Your task to perform on an android device: Add "usb-a to usb-b" to the cart on ebay.com Image 0: 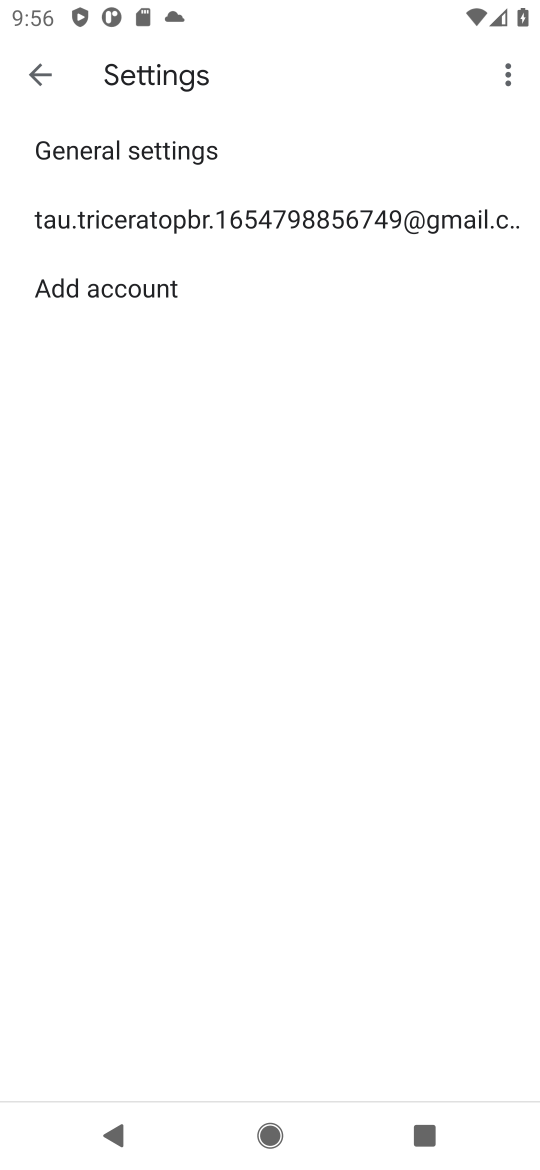
Step 0: press home button
Your task to perform on an android device: Add "usb-a to usb-b" to the cart on ebay.com Image 1: 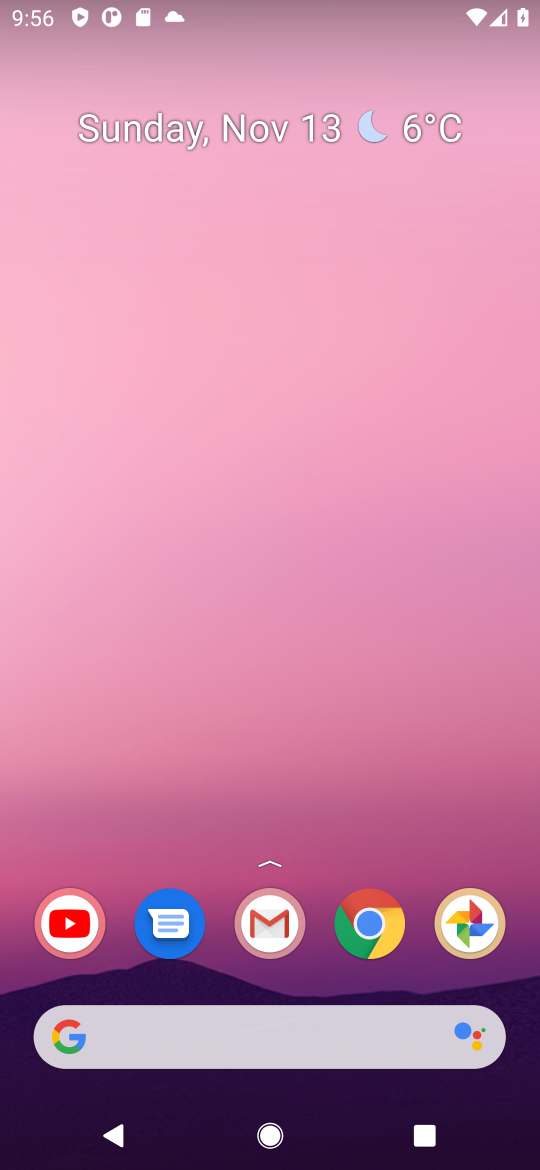
Step 1: click (382, 930)
Your task to perform on an android device: Add "usb-a to usb-b" to the cart on ebay.com Image 2: 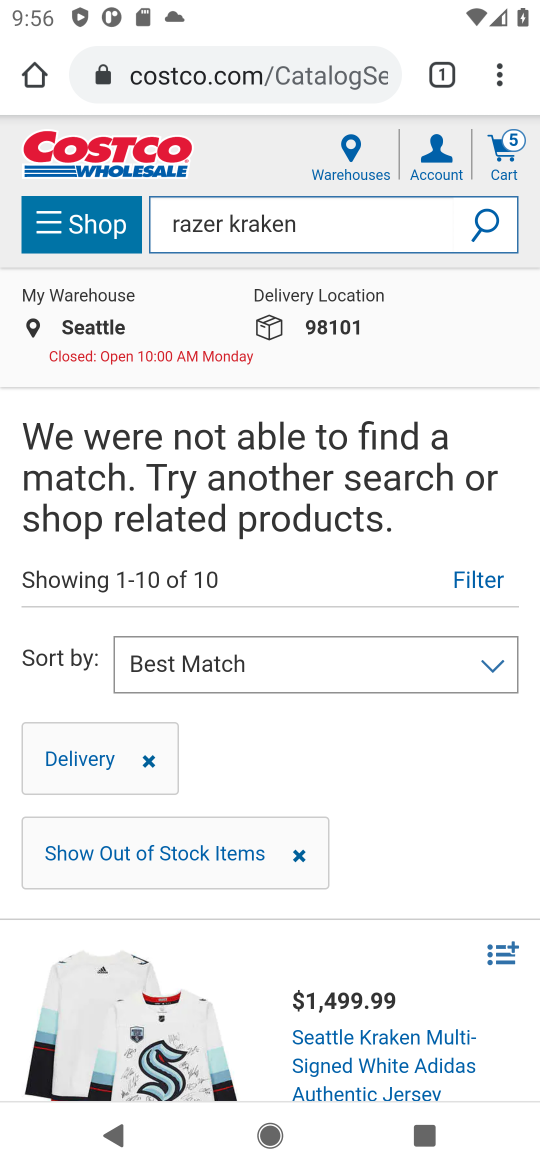
Step 2: click (325, 81)
Your task to perform on an android device: Add "usb-a to usb-b" to the cart on ebay.com Image 3: 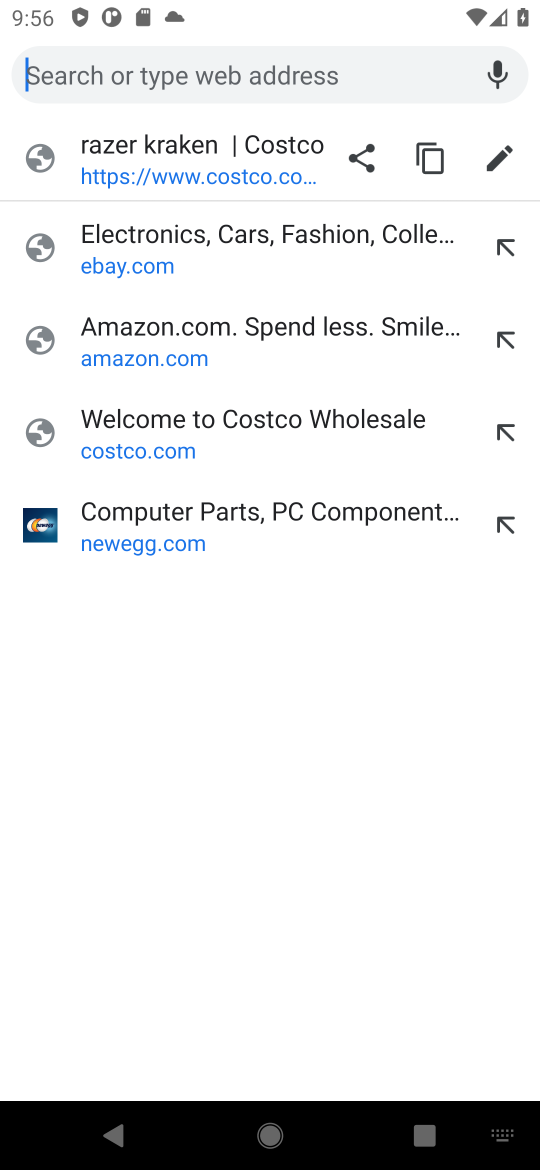
Step 3: click (142, 233)
Your task to perform on an android device: Add "usb-a to usb-b" to the cart on ebay.com Image 4: 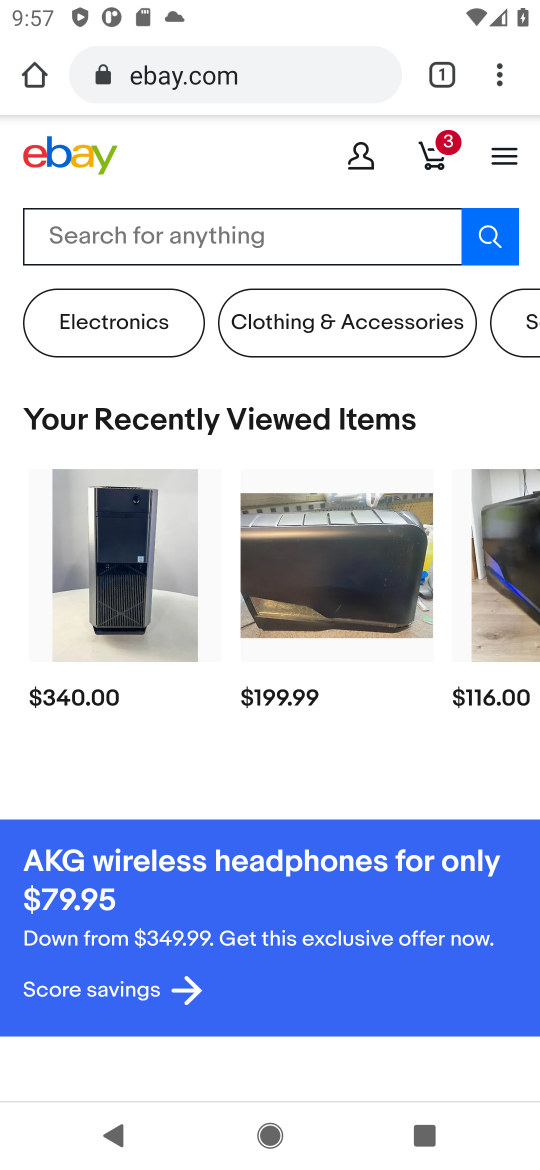
Step 4: click (436, 251)
Your task to perform on an android device: Add "usb-a to usb-b" to the cart on ebay.com Image 5: 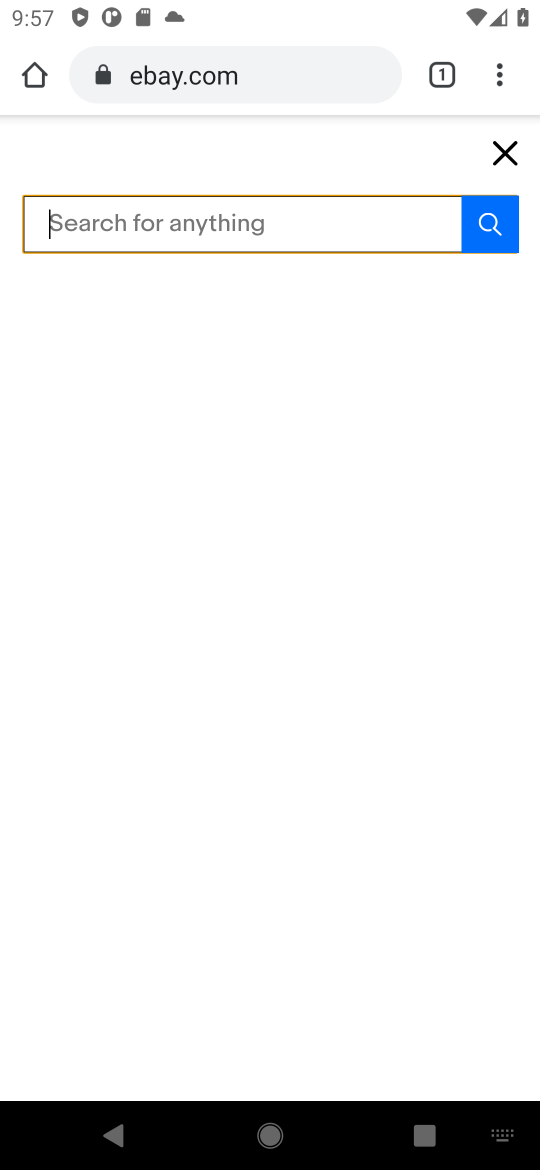
Step 5: type "usb-a to usb-b"
Your task to perform on an android device: Add "usb-a to usb-b" to the cart on ebay.com Image 6: 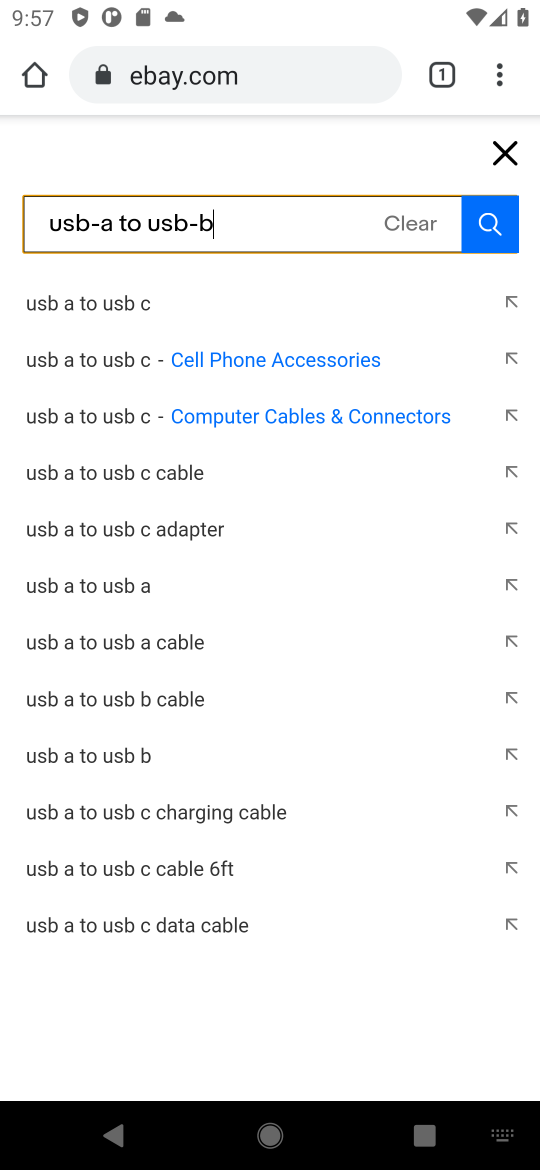
Step 6: press enter
Your task to perform on an android device: Add "usb-a to usb-b" to the cart on ebay.com Image 7: 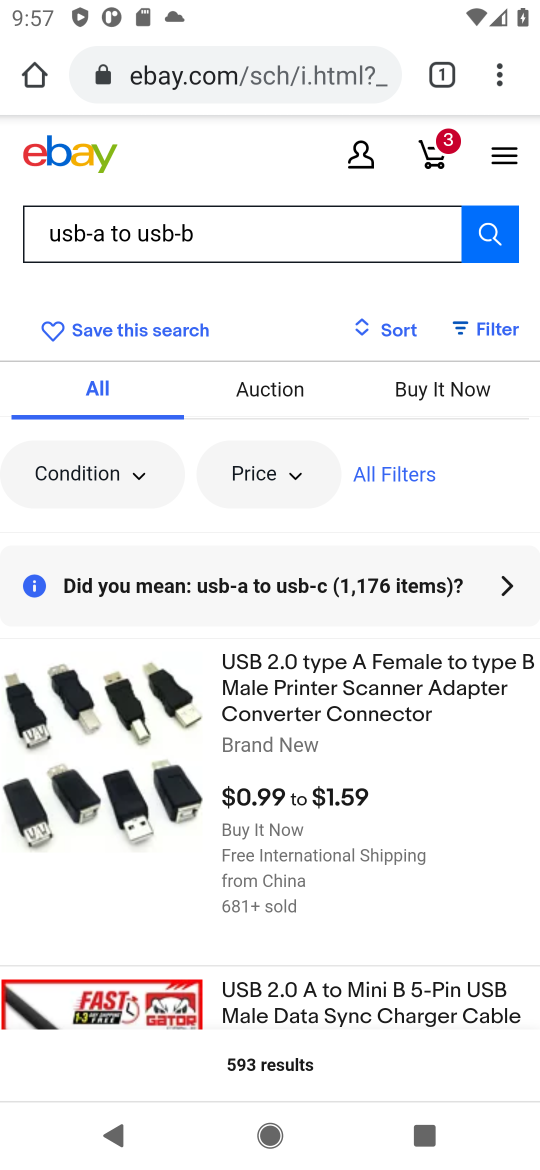
Step 7: drag from (447, 813) to (434, 731)
Your task to perform on an android device: Add "usb-a to usb-b" to the cart on ebay.com Image 8: 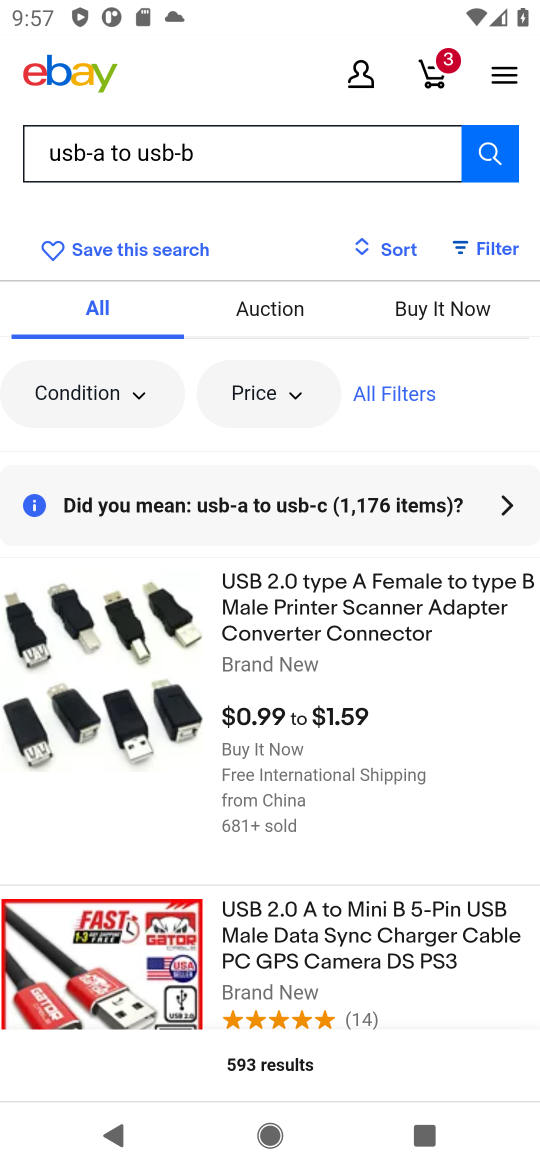
Step 8: click (49, 642)
Your task to perform on an android device: Add "usb-a to usb-b" to the cart on ebay.com Image 9: 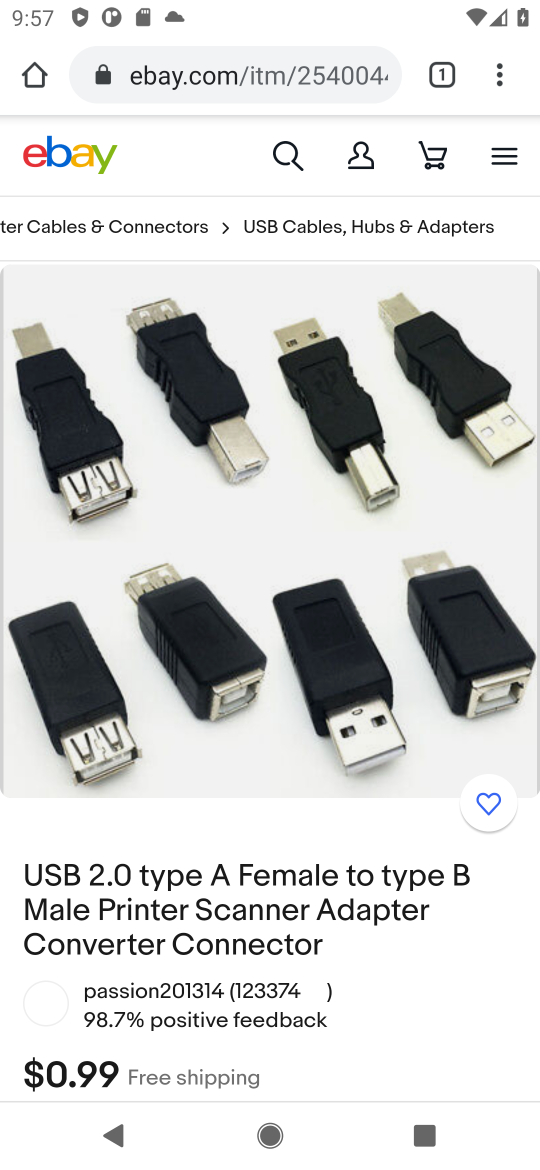
Step 9: drag from (396, 931) to (506, 372)
Your task to perform on an android device: Add "usb-a to usb-b" to the cart on ebay.com Image 10: 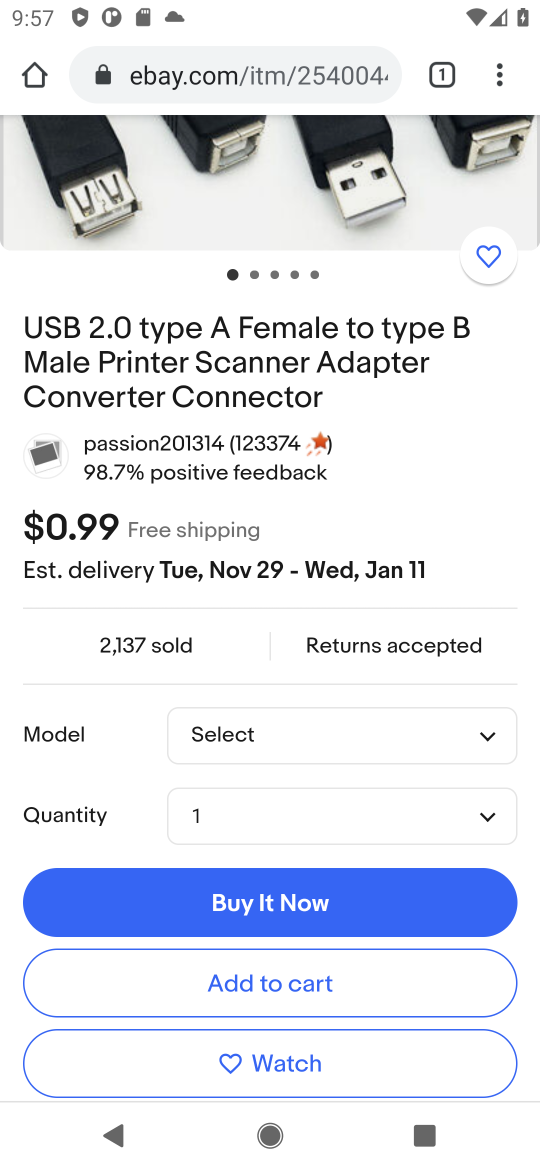
Step 10: click (298, 976)
Your task to perform on an android device: Add "usb-a to usb-b" to the cart on ebay.com Image 11: 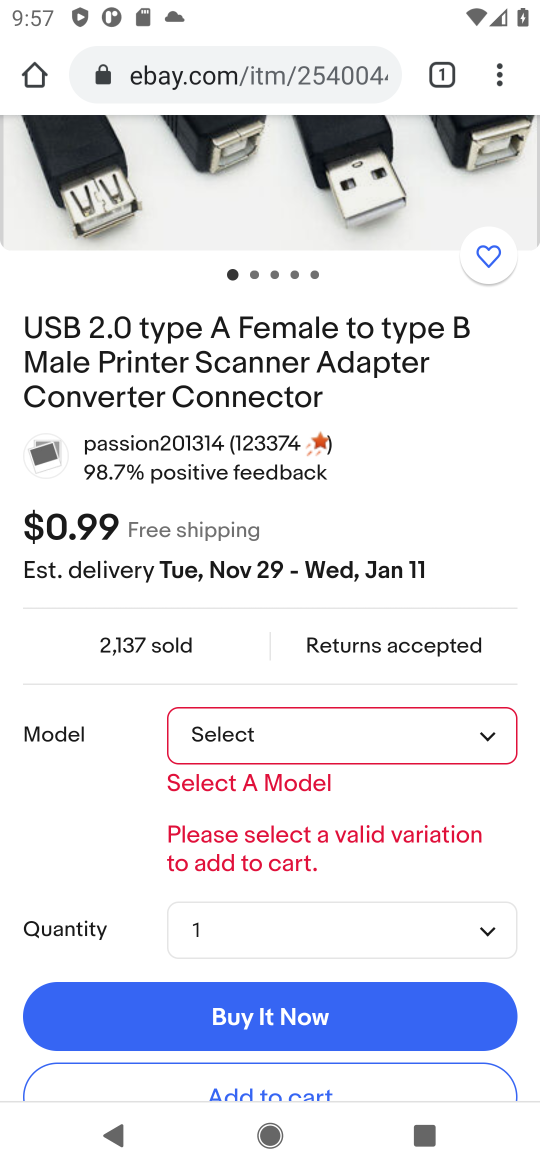
Step 11: press back button
Your task to perform on an android device: Add "usb-a to usb-b" to the cart on ebay.com Image 12: 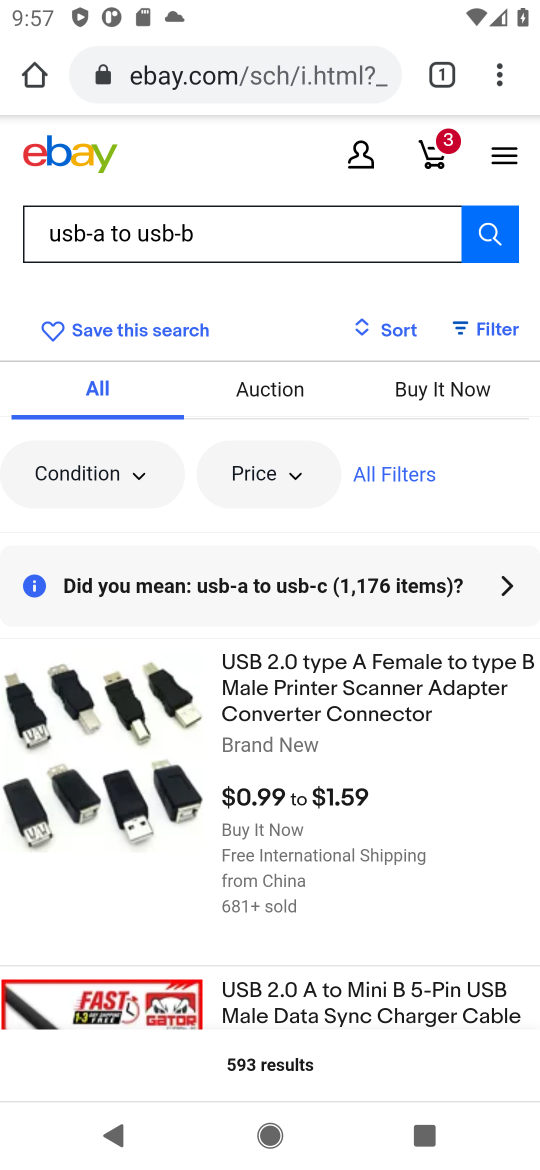
Step 12: drag from (443, 800) to (384, 372)
Your task to perform on an android device: Add "usb-a to usb-b" to the cart on ebay.com Image 13: 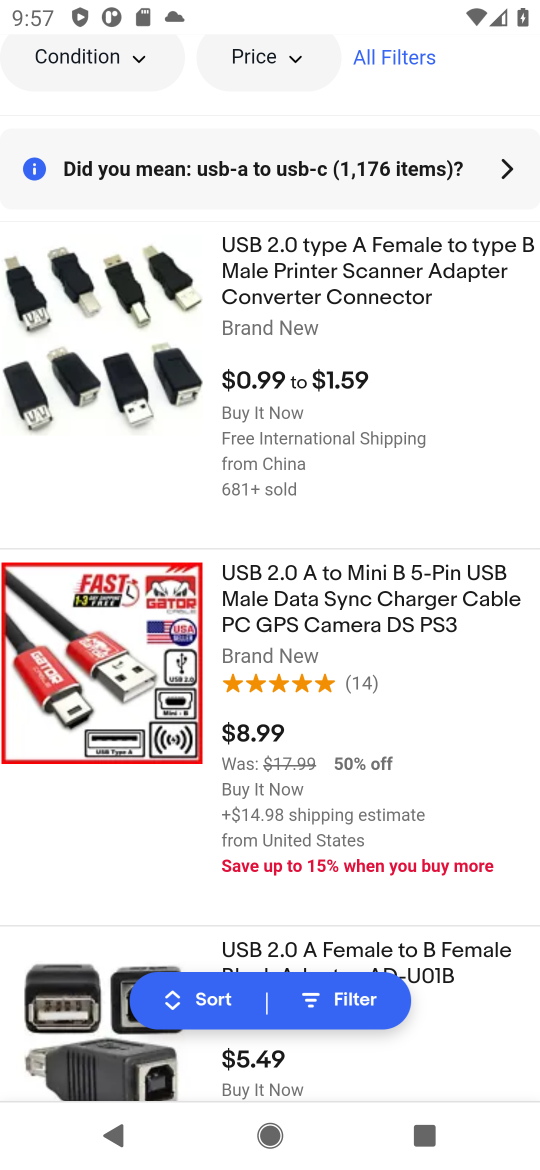
Step 13: drag from (471, 768) to (419, 337)
Your task to perform on an android device: Add "usb-a to usb-b" to the cart on ebay.com Image 14: 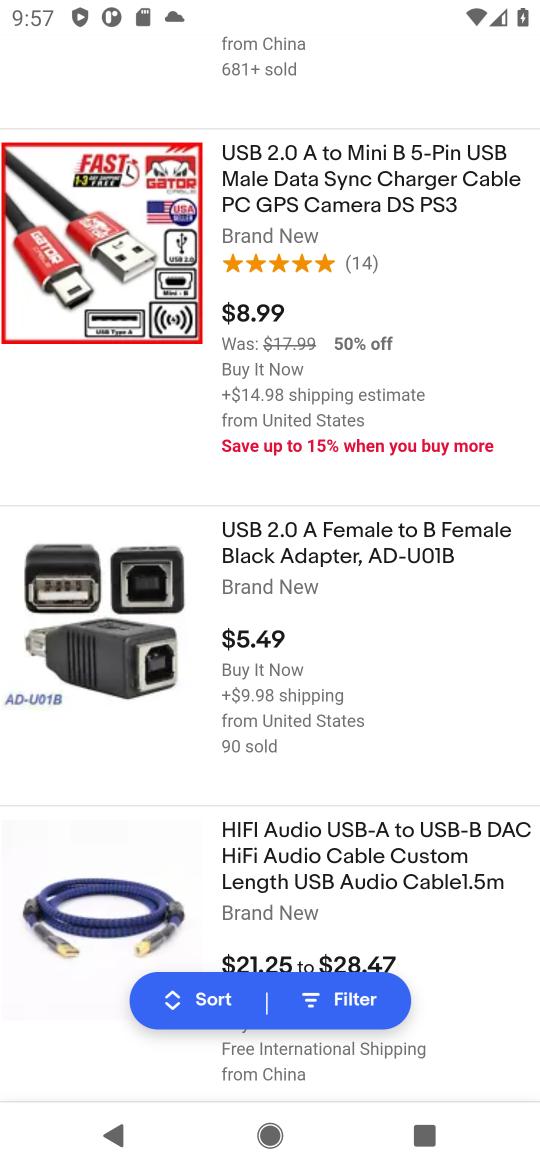
Step 14: click (126, 892)
Your task to perform on an android device: Add "usb-a to usb-b" to the cart on ebay.com Image 15: 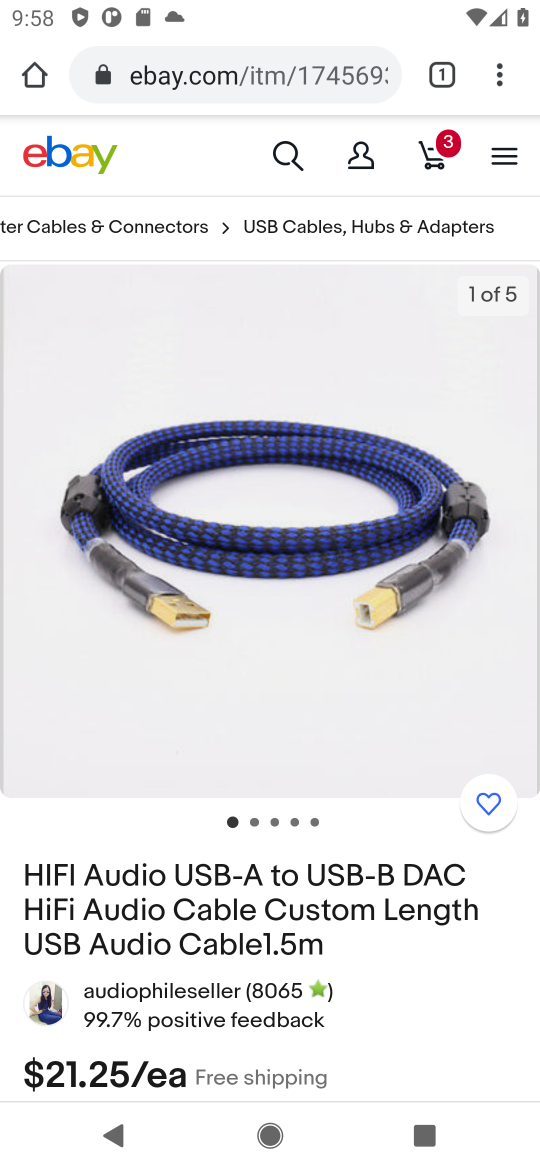
Step 15: drag from (325, 941) to (285, 290)
Your task to perform on an android device: Add "usb-a to usb-b" to the cart on ebay.com Image 16: 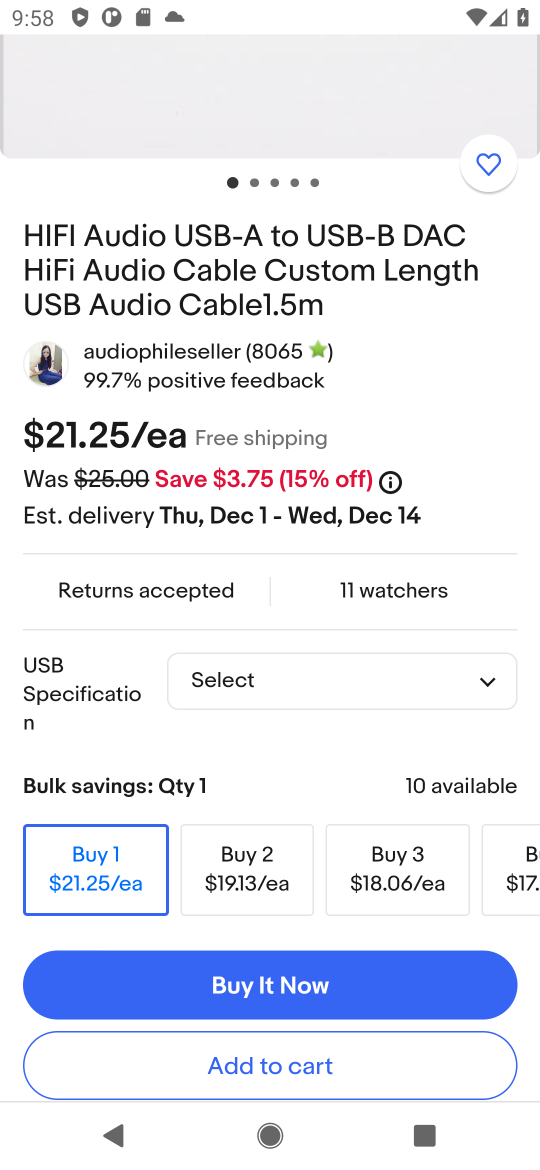
Step 16: click (277, 1070)
Your task to perform on an android device: Add "usb-a to usb-b" to the cart on ebay.com Image 17: 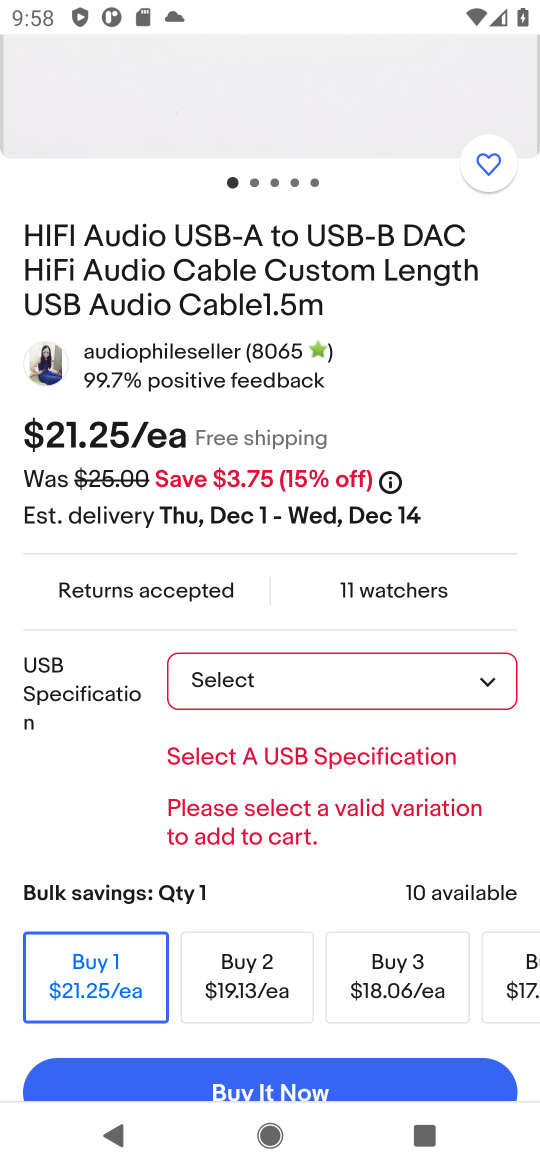
Step 17: press back button
Your task to perform on an android device: Add "usb-a to usb-b" to the cart on ebay.com Image 18: 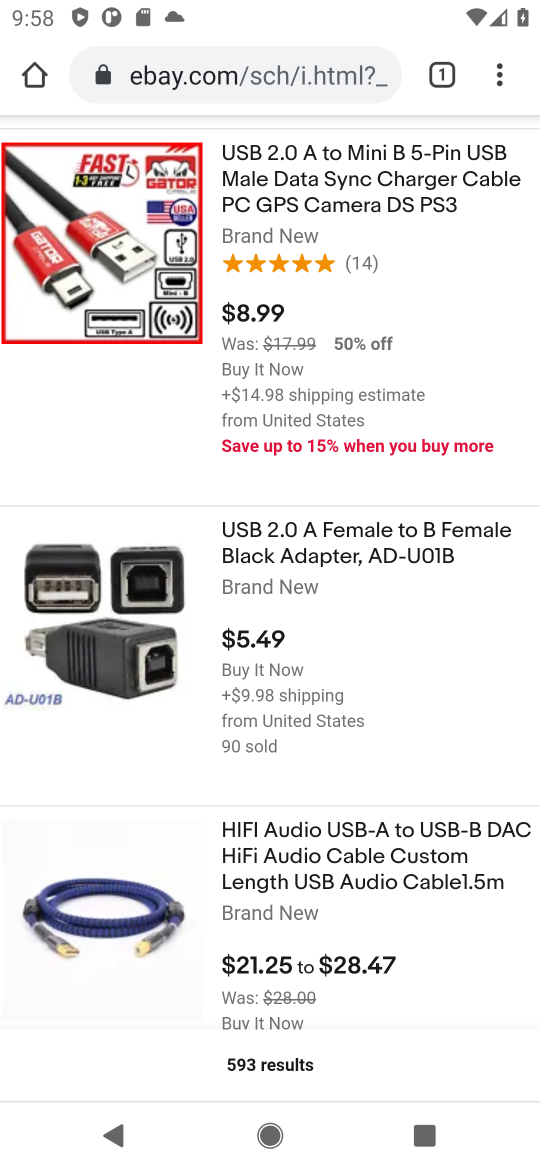
Step 18: click (111, 585)
Your task to perform on an android device: Add "usb-a to usb-b" to the cart on ebay.com Image 19: 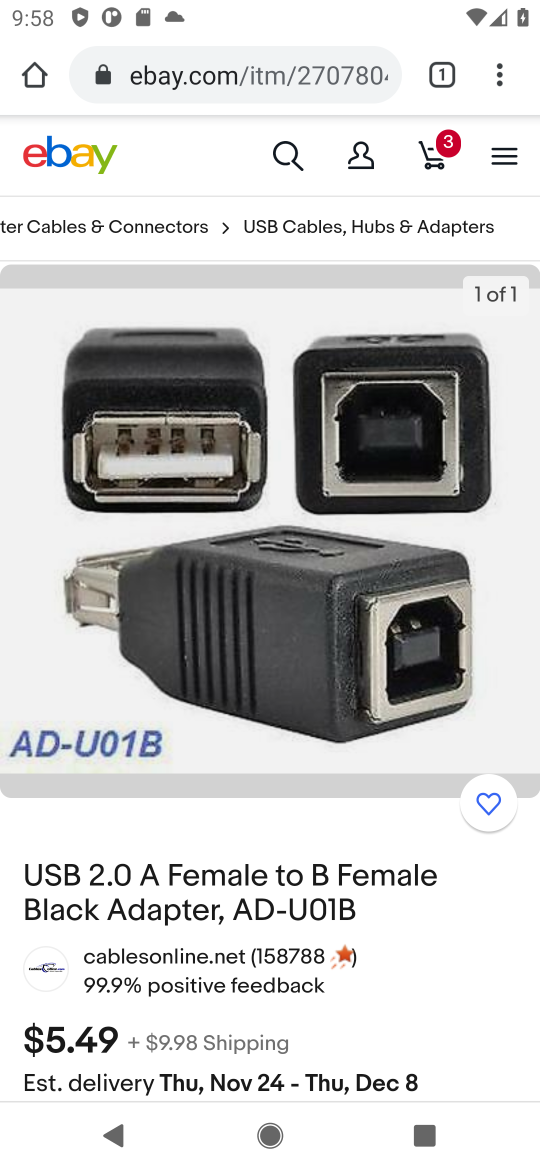
Step 19: drag from (421, 906) to (359, 398)
Your task to perform on an android device: Add "usb-a to usb-b" to the cart on ebay.com Image 20: 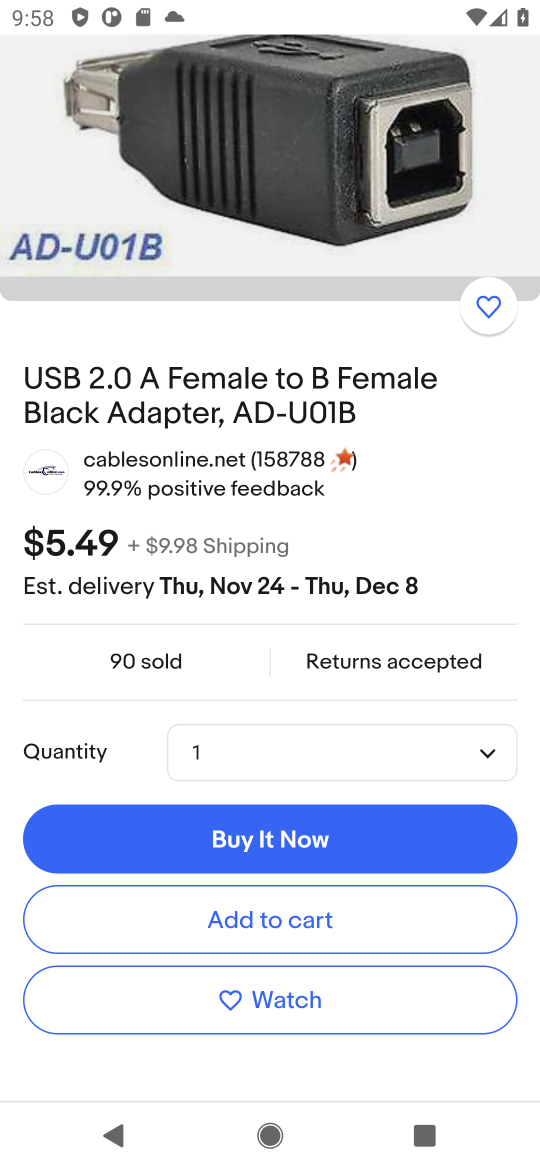
Step 20: click (327, 910)
Your task to perform on an android device: Add "usb-a to usb-b" to the cart on ebay.com Image 21: 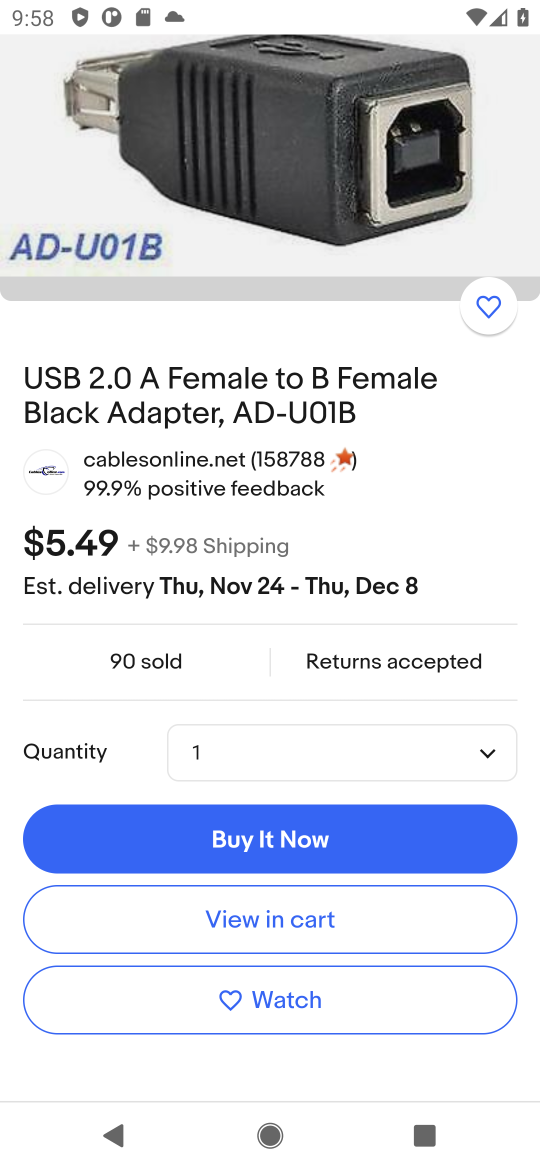
Step 21: task complete